Your task to perform on an android device: turn on wifi Image 0: 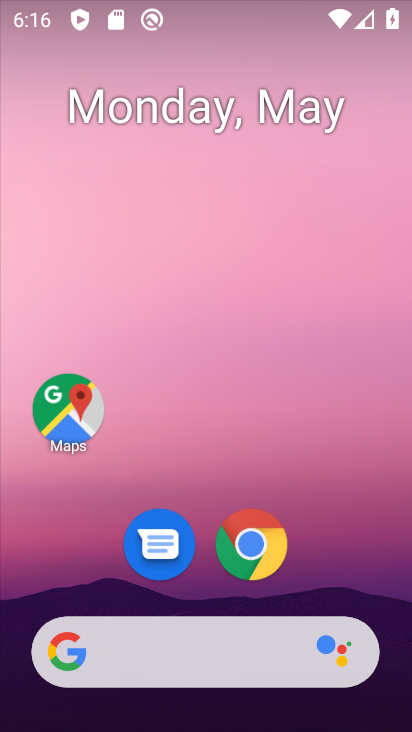
Step 0: drag from (317, 426) to (205, 11)
Your task to perform on an android device: turn on wifi Image 1: 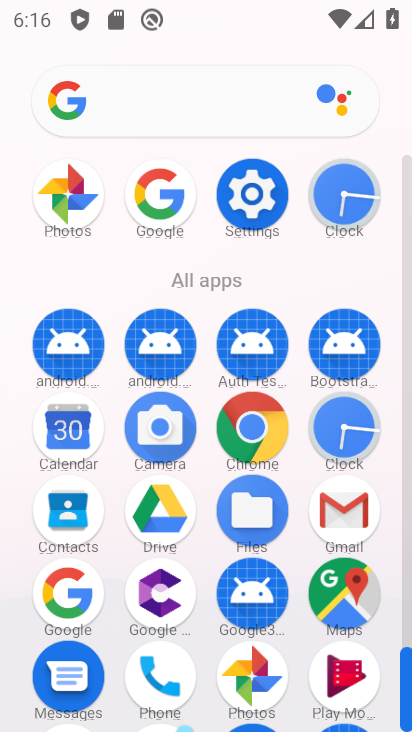
Step 1: click (255, 203)
Your task to perform on an android device: turn on wifi Image 2: 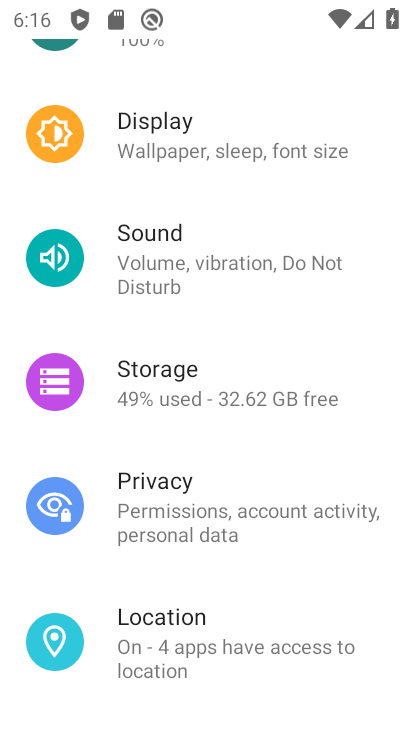
Step 2: drag from (286, 154) to (229, 656)
Your task to perform on an android device: turn on wifi Image 3: 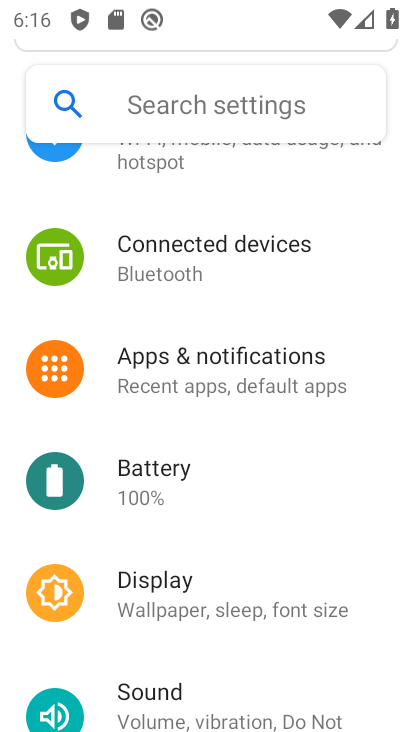
Step 3: click (238, 159)
Your task to perform on an android device: turn on wifi Image 4: 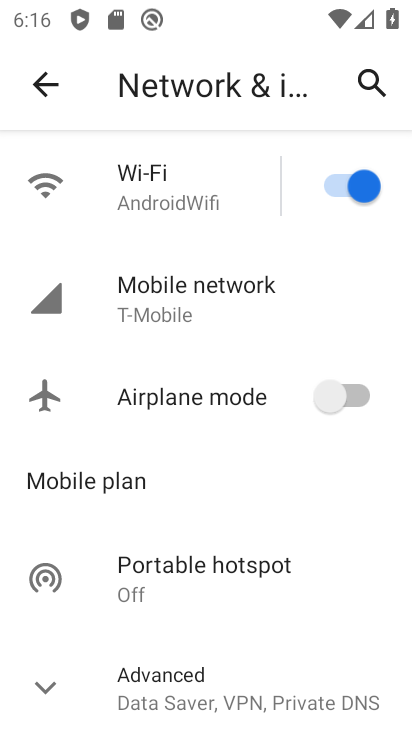
Step 4: task complete